Your task to perform on an android device: change notification settings in the gmail app Image 0: 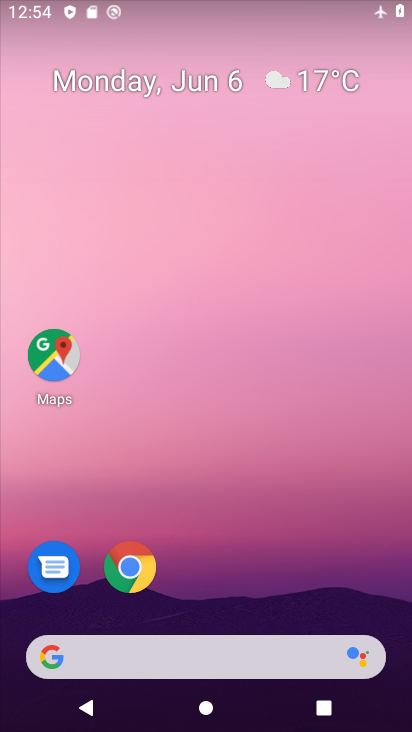
Step 0: drag from (268, 720) to (367, 163)
Your task to perform on an android device: change notification settings in the gmail app Image 1: 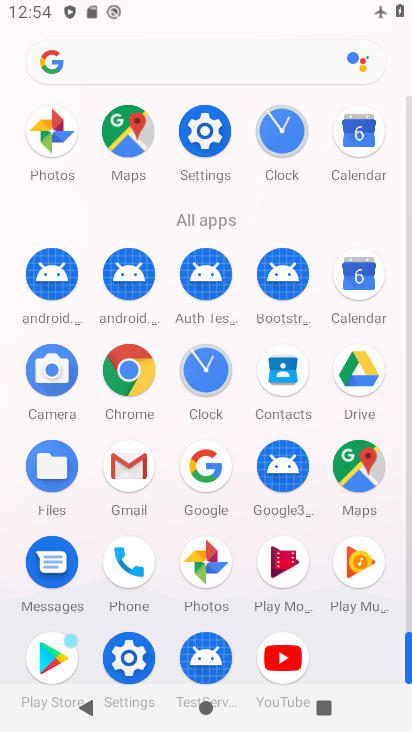
Step 1: click (150, 470)
Your task to perform on an android device: change notification settings in the gmail app Image 2: 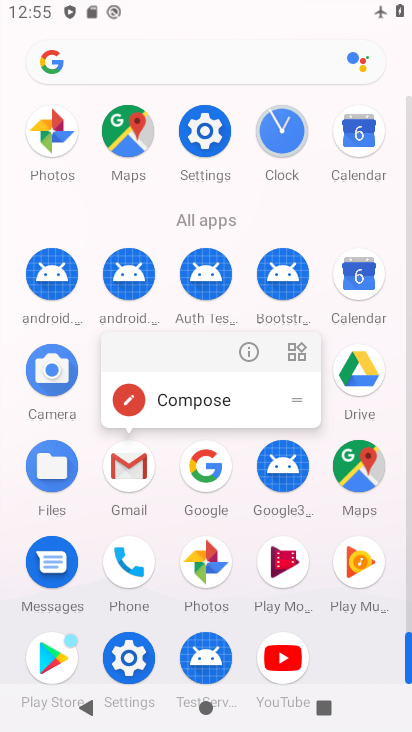
Step 2: click (241, 343)
Your task to perform on an android device: change notification settings in the gmail app Image 3: 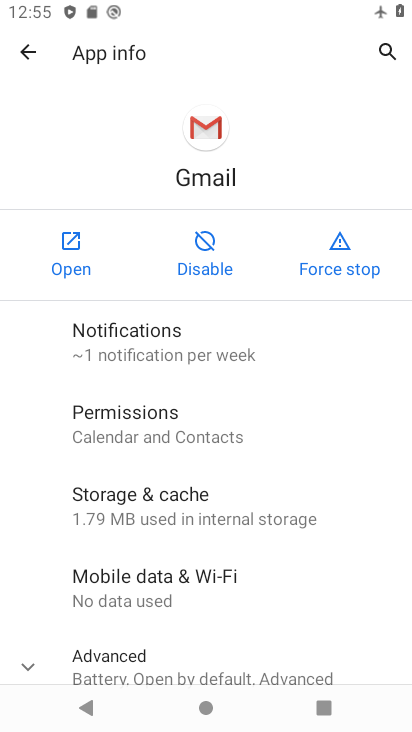
Step 3: click (223, 348)
Your task to perform on an android device: change notification settings in the gmail app Image 4: 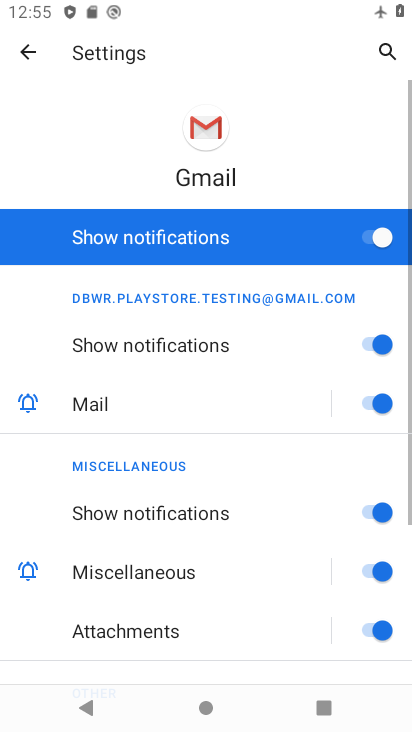
Step 4: click (380, 236)
Your task to perform on an android device: change notification settings in the gmail app Image 5: 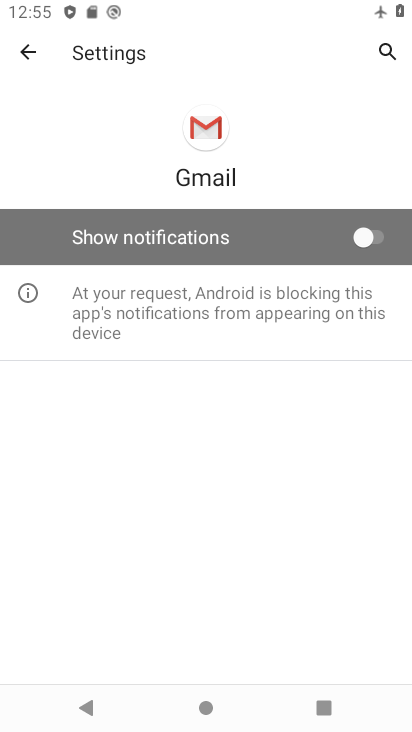
Step 5: task complete